Your task to perform on an android device: turn off notifications in google photos Image 0: 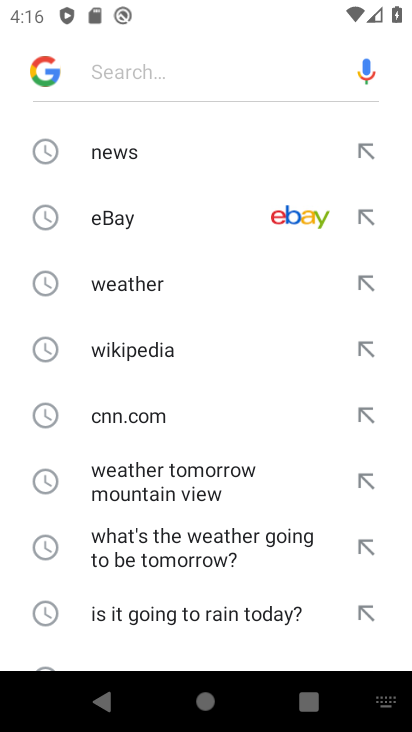
Step 0: press home button
Your task to perform on an android device: turn off notifications in google photos Image 1: 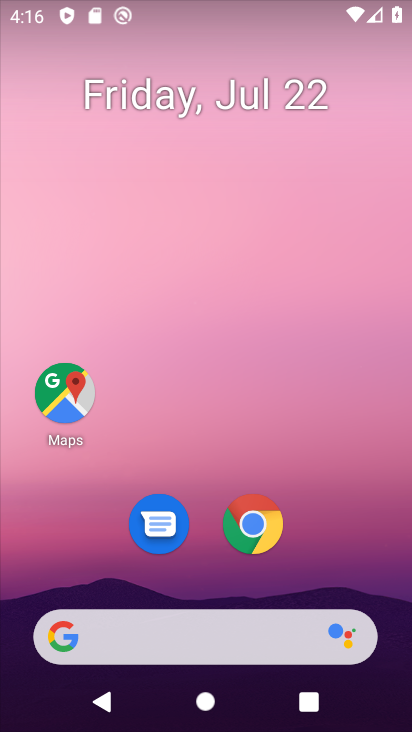
Step 1: drag from (332, 562) to (293, 26)
Your task to perform on an android device: turn off notifications in google photos Image 2: 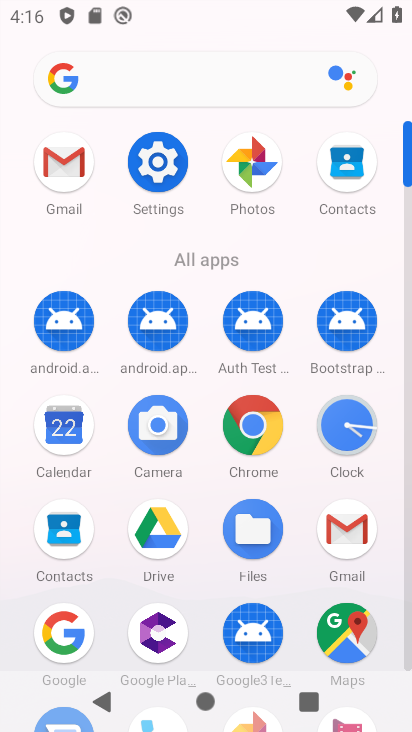
Step 2: click (254, 165)
Your task to perform on an android device: turn off notifications in google photos Image 3: 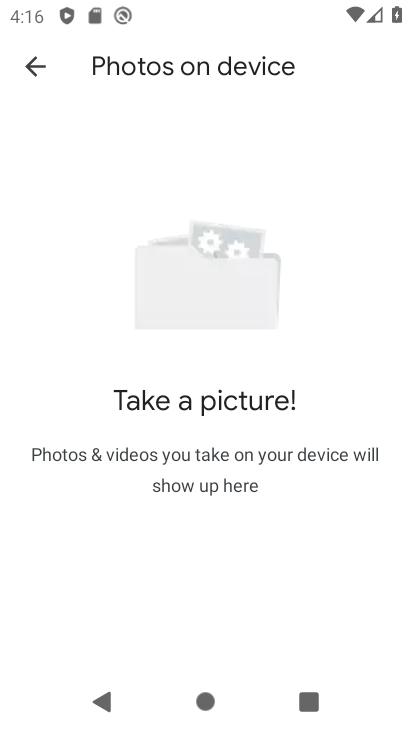
Step 3: click (37, 62)
Your task to perform on an android device: turn off notifications in google photos Image 4: 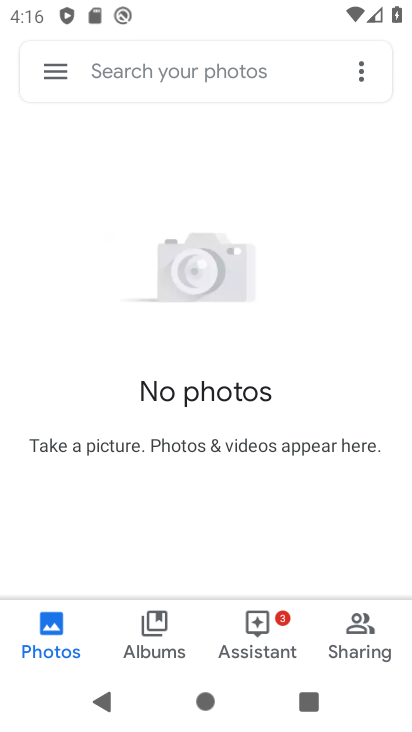
Step 4: click (51, 71)
Your task to perform on an android device: turn off notifications in google photos Image 5: 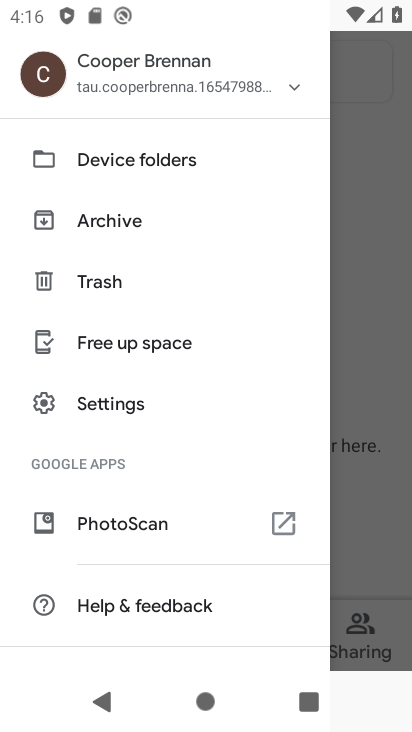
Step 5: click (133, 407)
Your task to perform on an android device: turn off notifications in google photos Image 6: 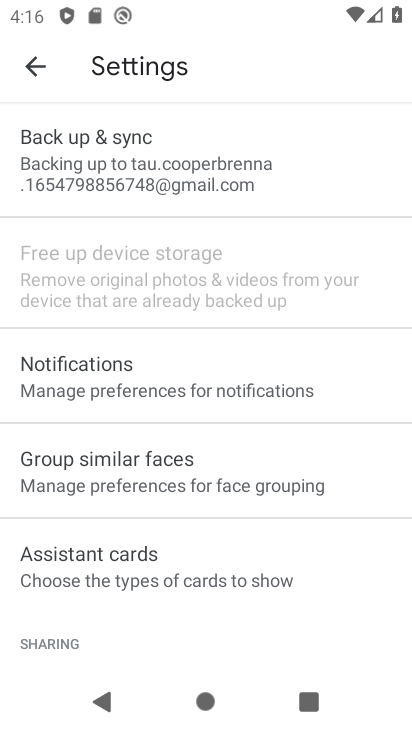
Step 6: click (144, 366)
Your task to perform on an android device: turn off notifications in google photos Image 7: 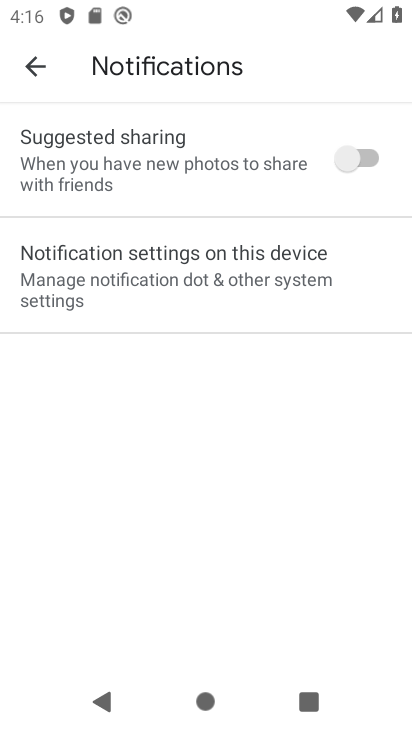
Step 7: click (194, 277)
Your task to perform on an android device: turn off notifications in google photos Image 8: 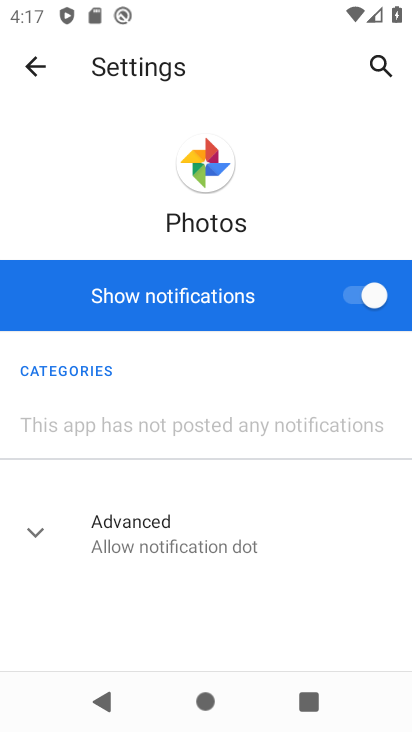
Step 8: click (360, 295)
Your task to perform on an android device: turn off notifications in google photos Image 9: 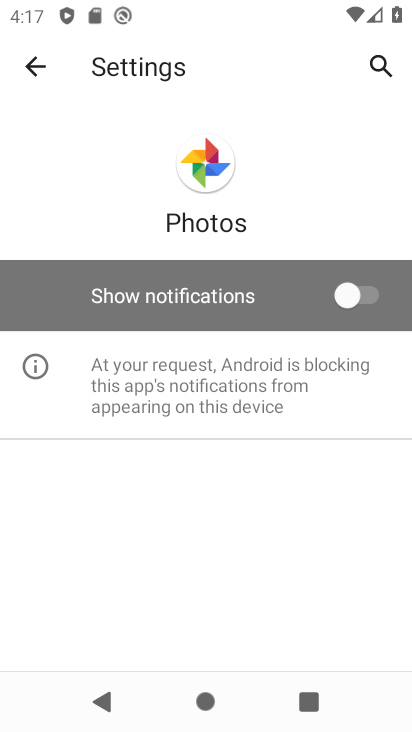
Step 9: task complete